Your task to perform on an android device: Open the web browser Image 0: 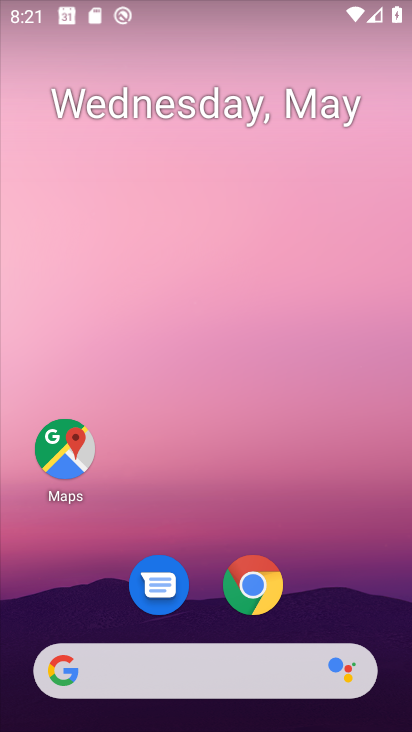
Step 0: click (263, 586)
Your task to perform on an android device: Open the web browser Image 1: 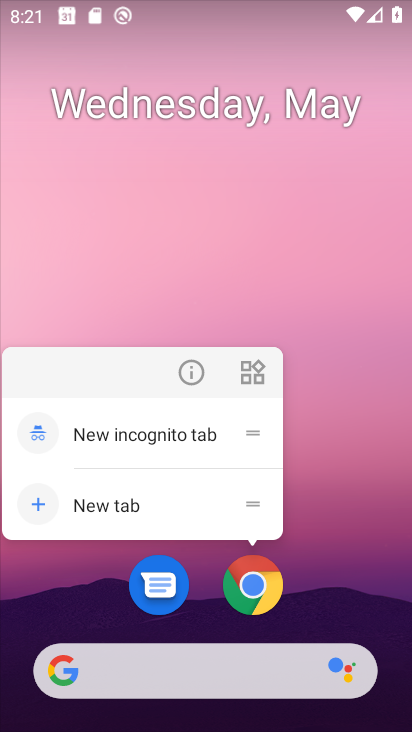
Step 1: click (263, 586)
Your task to perform on an android device: Open the web browser Image 2: 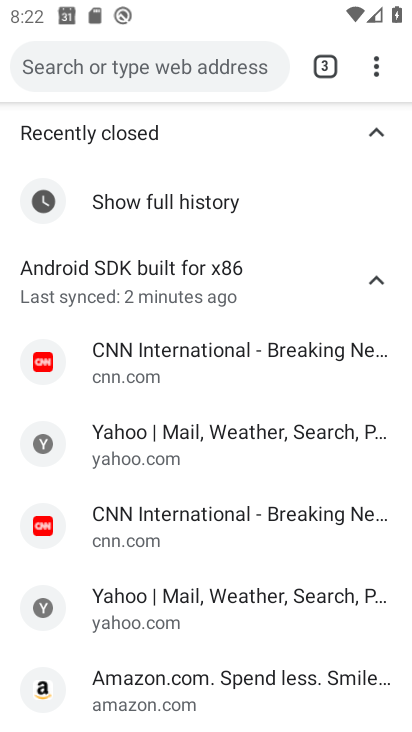
Step 2: task complete